Your task to perform on an android device: See recent photos Image 0: 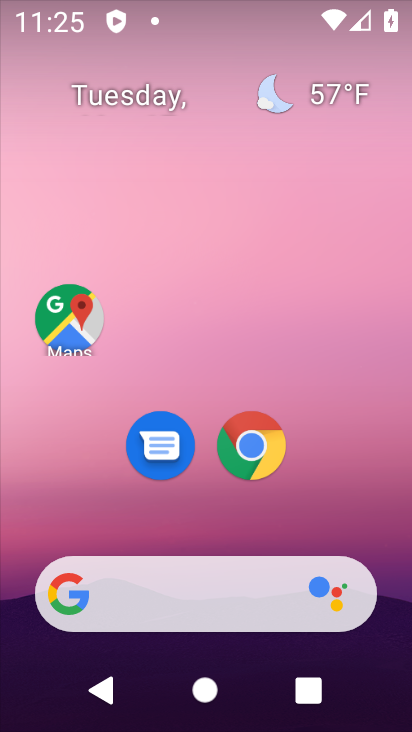
Step 0: drag from (365, 509) to (380, 168)
Your task to perform on an android device: See recent photos Image 1: 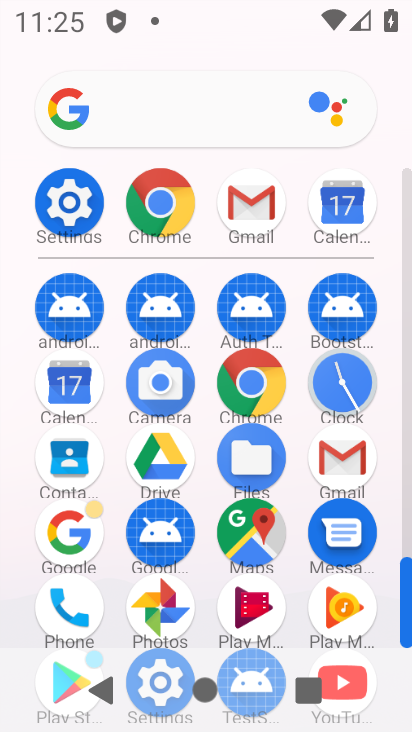
Step 1: click (170, 616)
Your task to perform on an android device: See recent photos Image 2: 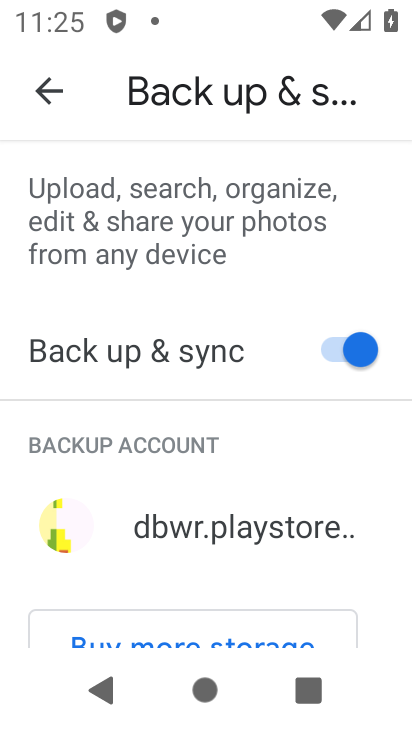
Step 2: drag from (249, 561) to (272, 356)
Your task to perform on an android device: See recent photos Image 3: 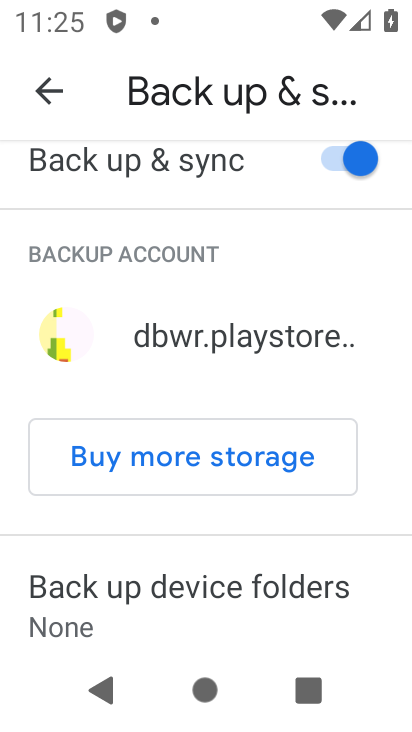
Step 3: click (44, 92)
Your task to perform on an android device: See recent photos Image 4: 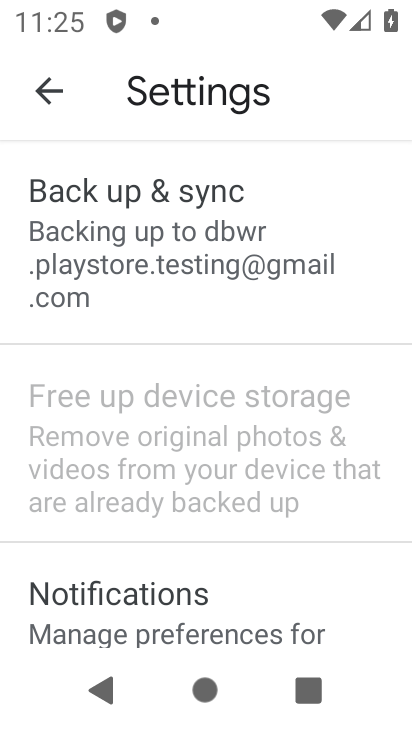
Step 4: click (43, 75)
Your task to perform on an android device: See recent photos Image 5: 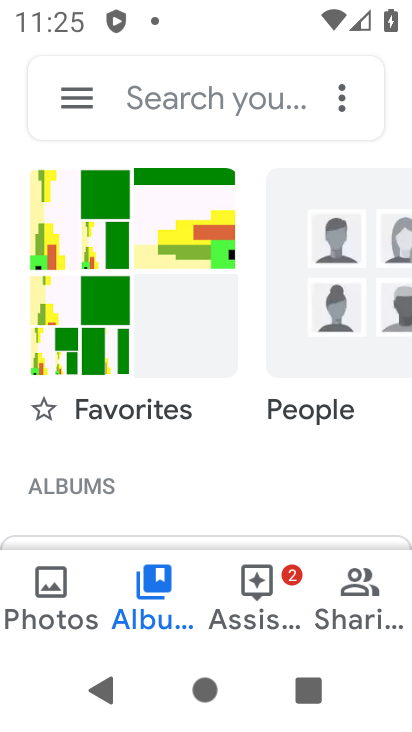
Step 5: click (66, 584)
Your task to perform on an android device: See recent photos Image 6: 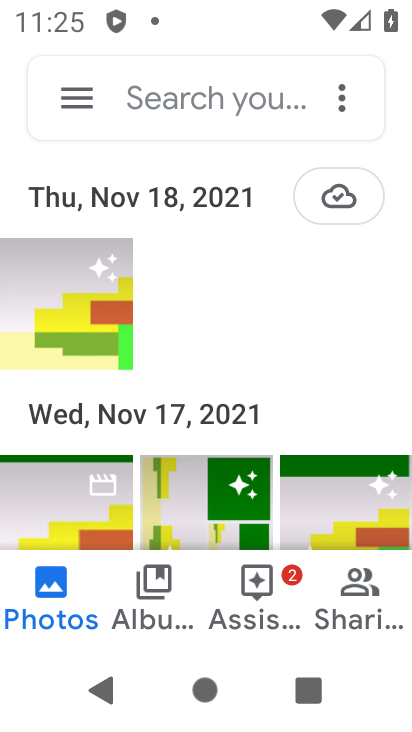
Step 6: click (77, 317)
Your task to perform on an android device: See recent photos Image 7: 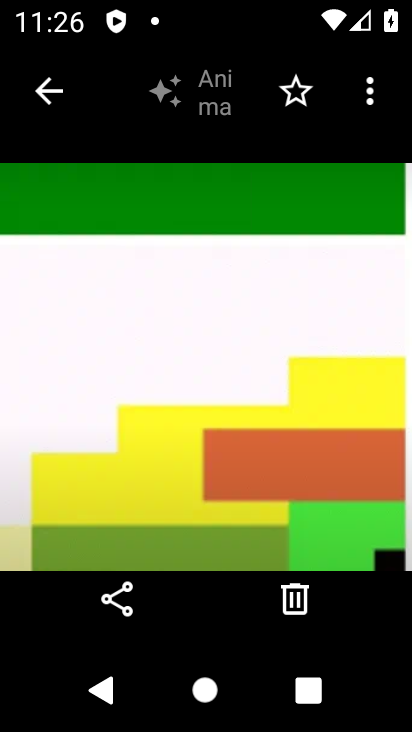
Step 7: task complete